Your task to perform on an android device: Open calendar and show me the third week of next month Image 0: 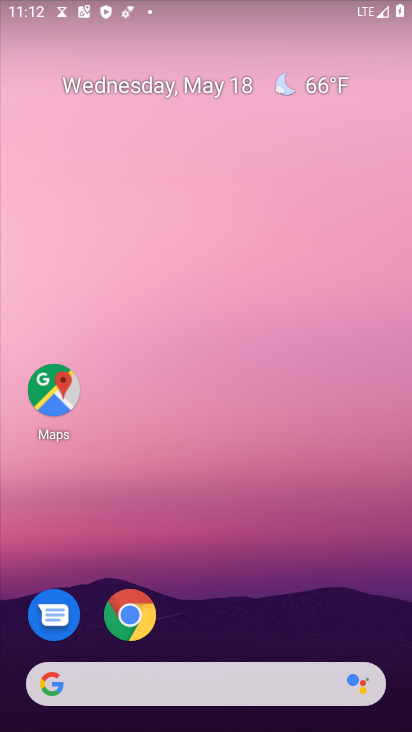
Step 0: drag from (267, 611) to (256, 13)
Your task to perform on an android device: Open calendar and show me the third week of next month Image 1: 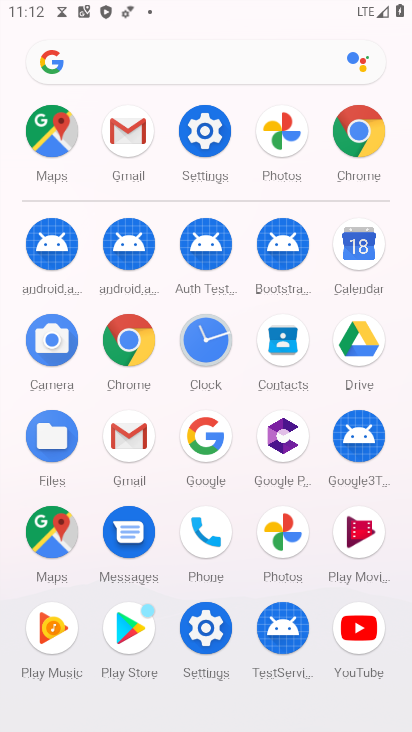
Step 1: drag from (5, 498) to (14, 199)
Your task to perform on an android device: Open calendar and show me the third week of next month Image 2: 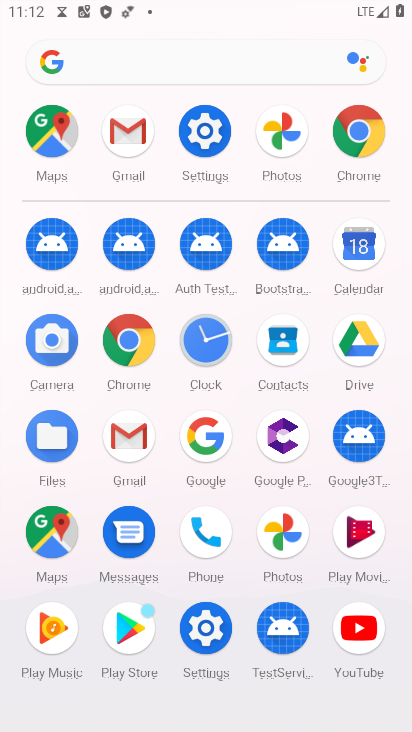
Step 2: click (358, 237)
Your task to perform on an android device: Open calendar and show me the third week of next month Image 3: 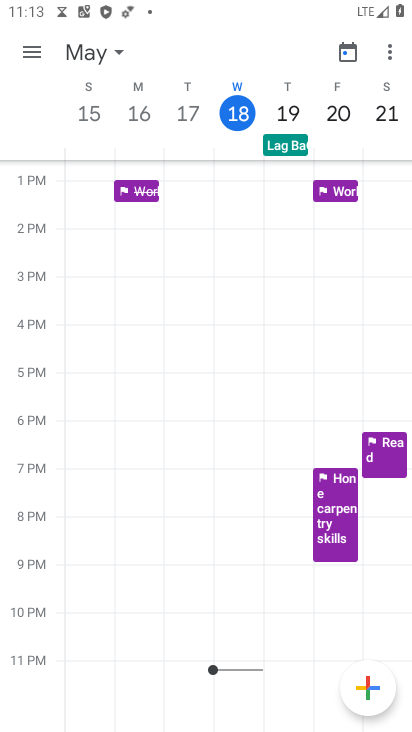
Step 3: click (95, 62)
Your task to perform on an android device: Open calendar and show me the third week of next month Image 4: 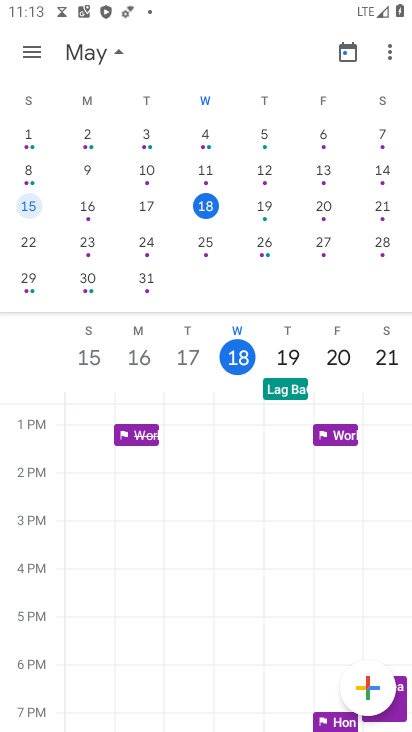
Step 4: drag from (376, 179) to (18, 157)
Your task to perform on an android device: Open calendar and show me the third week of next month Image 5: 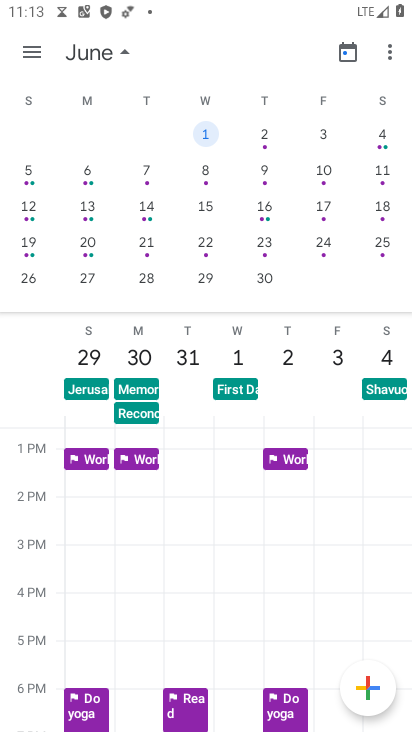
Step 5: click (25, 201)
Your task to perform on an android device: Open calendar and show me the third week of next month Image 6: 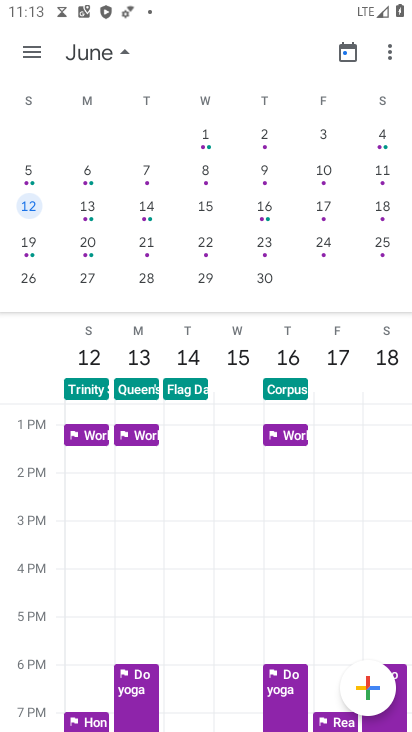
Step 6: click (26, 39)
Your task to perform on an android device: Open calendar and show me the third week of next month Image 7: 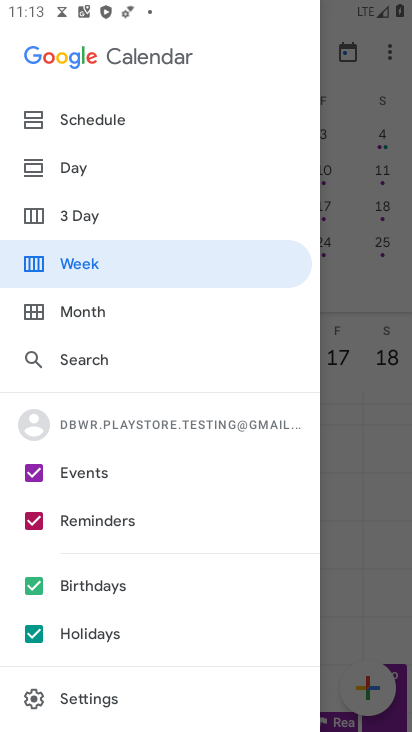
Step 7: click (86, 246)
Your task to perform on an android device: Open calendar and show me the third week of next month Image 8: 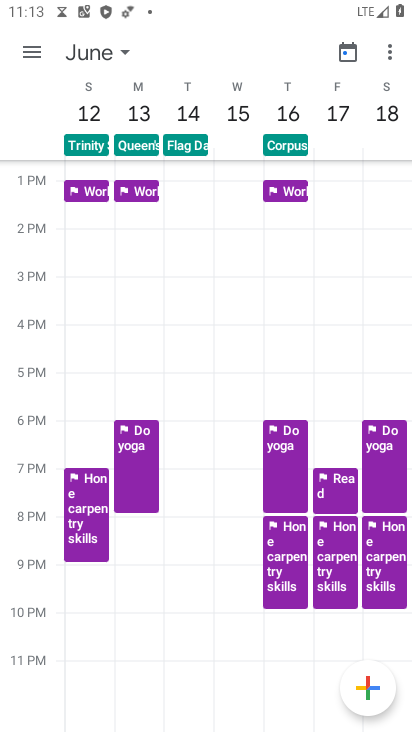
Step 8: task complete